Your task to perform on an android device: Open Google Chrome and click the shortcut for Amazon.com Image 0: 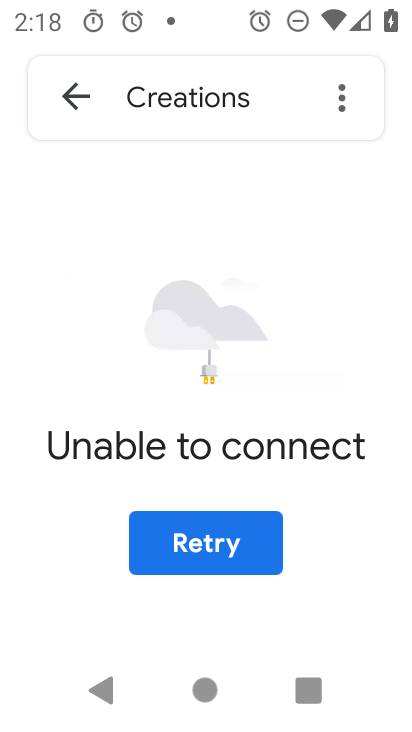
Step 0: press home button
Your task to perform on an android device: Open Google Chrome and click the shortcut for Amazon.com Image 1: 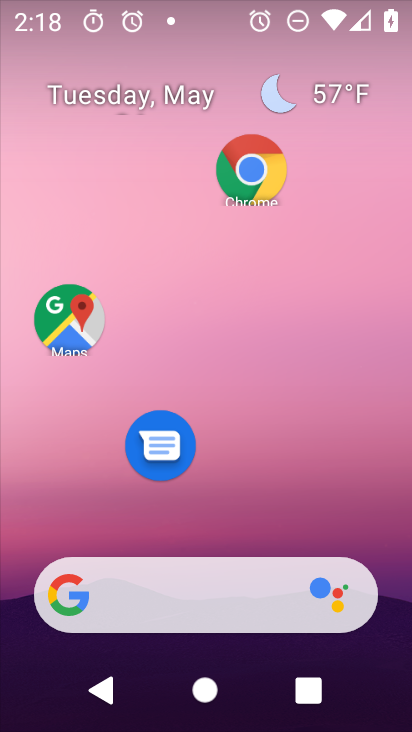
Step 1: click (248, 160)
Your task to perform on an android device: Open Google Chrome and click the shortcut for Amazon.com Image 2: 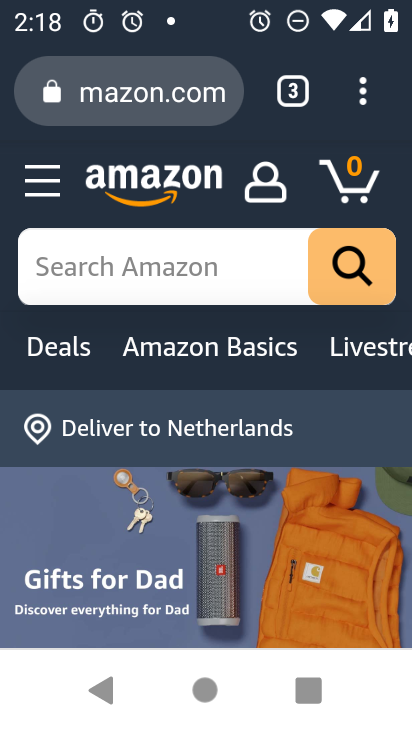
Step 2: task complete